Your task to perform on an android device: Go to privacy settings Image 0: 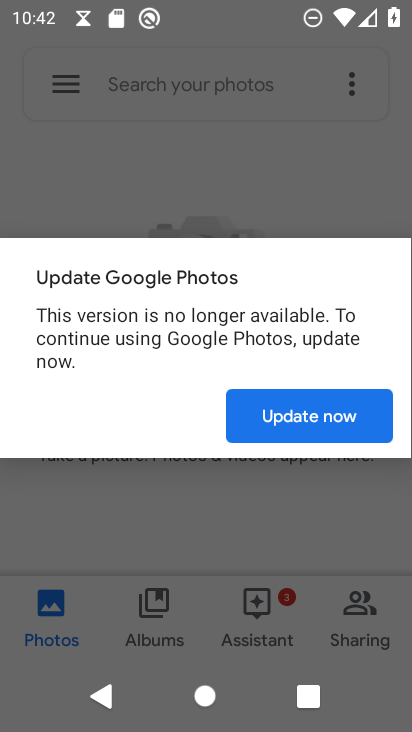
Step 0: press back button
Your task to perform on an android device: Go to privacy settings Image 1: 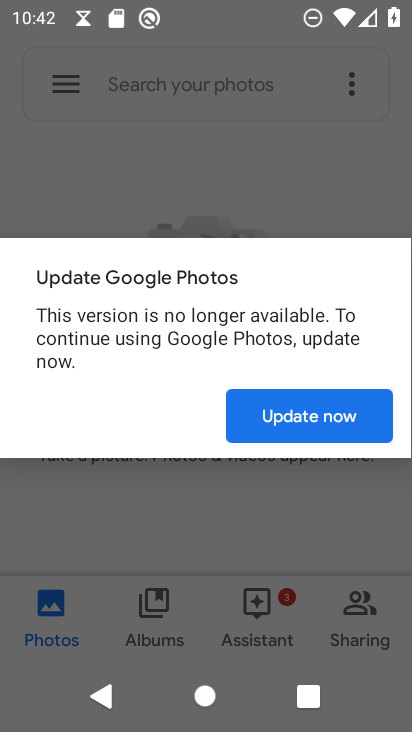
Step 1: press home button
Your task to perform on an android device: Go to privacy settings Image 2: 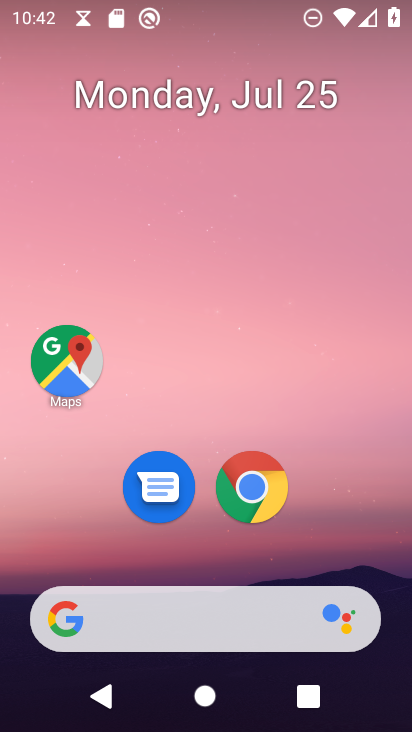
Step 2: drag from (87, 540) to (200, 0)
Your task to perform on an android device: Go to privacy settings Image 3: 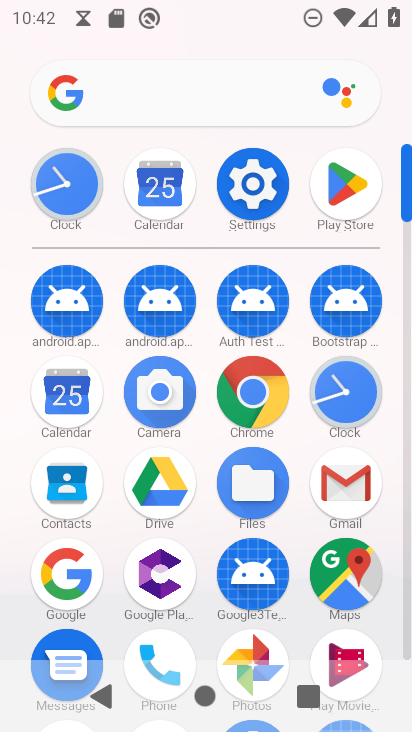
Step 3: click (247, 178)
Your task to perform on an android device: Go to privacy settings Image 4: 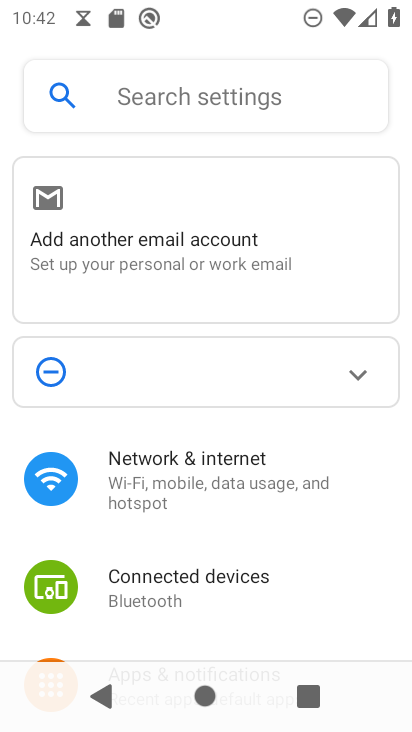
Step 4: drag from (156, 558) to (266, 15)
Your task to perform on an android device: Go to privacy settings Image 5: 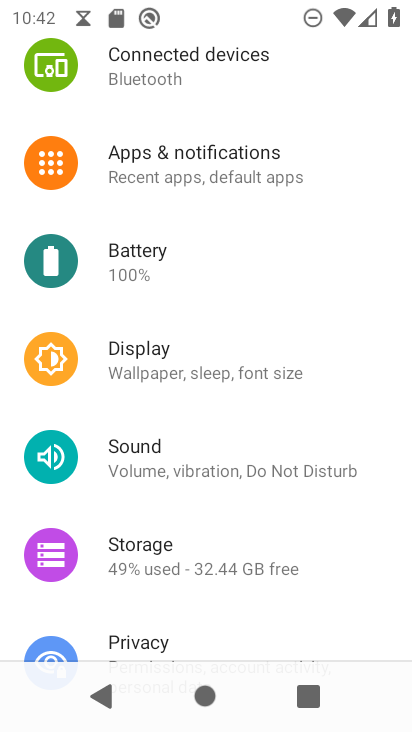
Step 5: click (128, 650)
Your task to perform on an android device: Go to privacy settings Image 6: 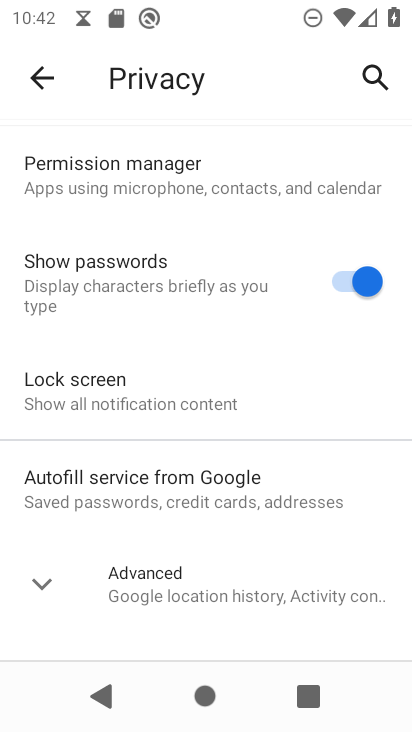
Step 6: task complete